Your task to perform on an android device: Search for Mexican restaurants on Maps Image 0: 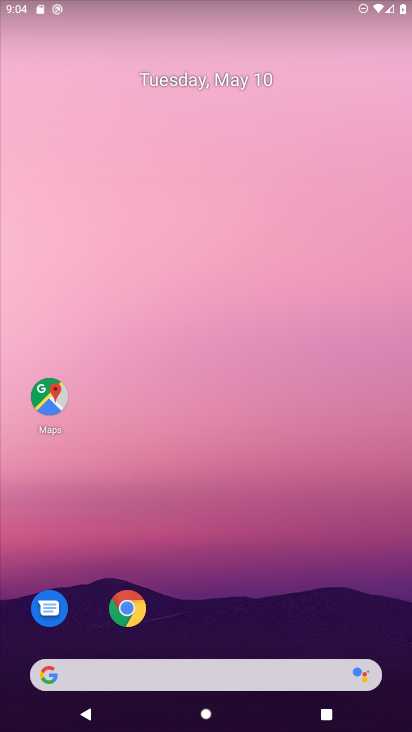
Step 0: drag from (322, 614) to (295, 72)
Your task to perform on an android device: Search for Mexican restaurants on Maps Image 1: 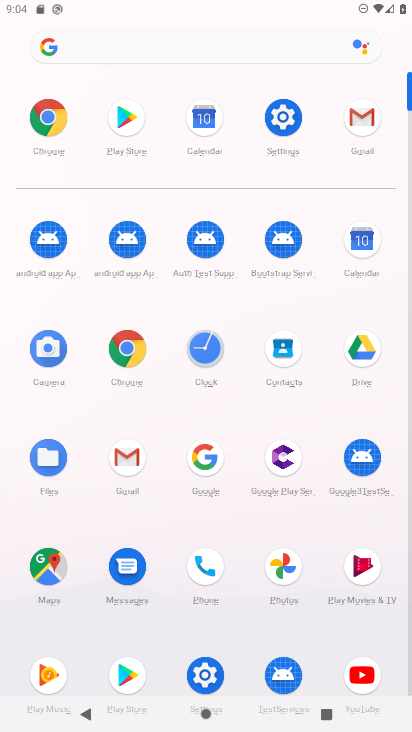
Step 1: click (62, 572)
Your task to perform on an android device: Search for Mexican restaurants on Maps Image 2: 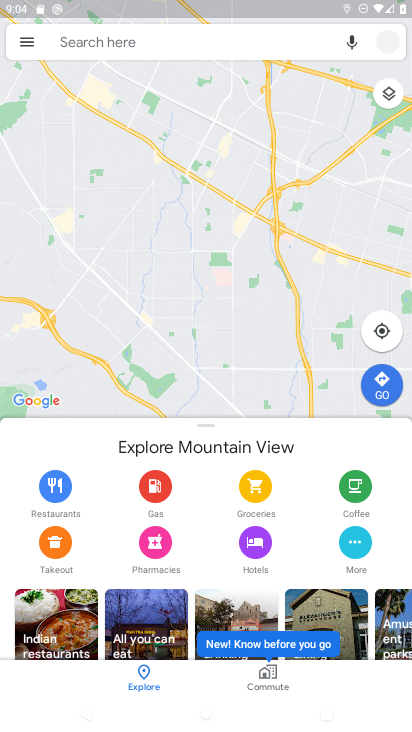
Step 2: click (131, 44)
Your task to perform on an android device: Search for Mexican restaurants on Maps Image 3: 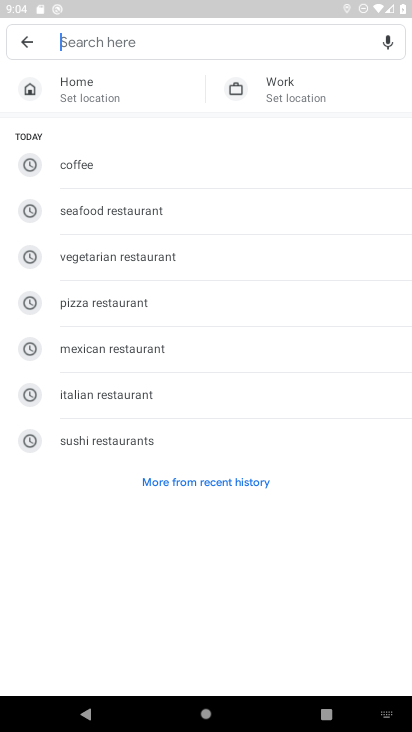
Step 3: click (113, 360)
Your task to perform on an android device: Search for Mexican restaurants on Maps Image 4: 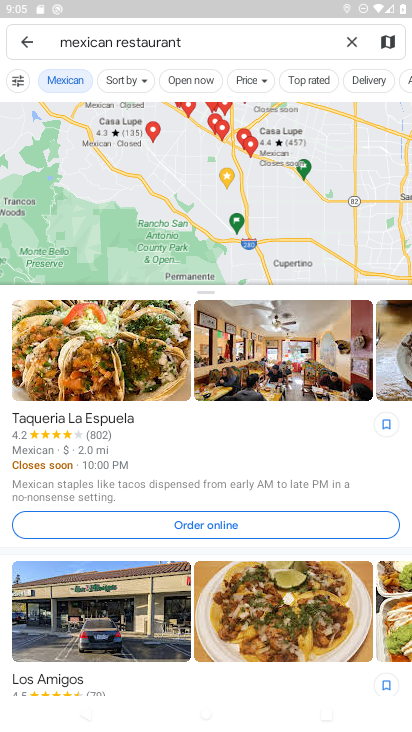
Step 4: task complete